Your task to perform on an android device: Add "acer predator" to the cart on newegg.com Image 0: 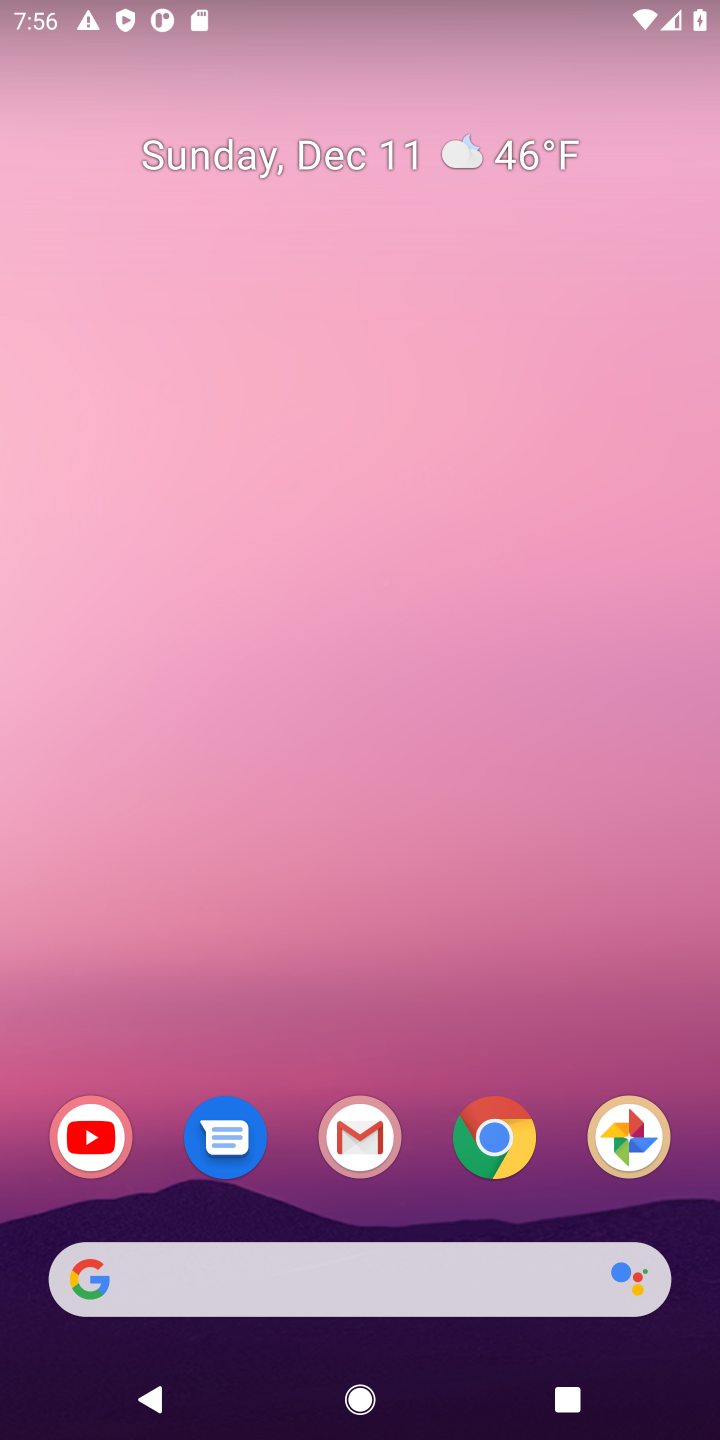
Step 0: click (482, 1150)
Your task to perform on an android device: Add "acer predator" to the cart on newegg.com Image 1: 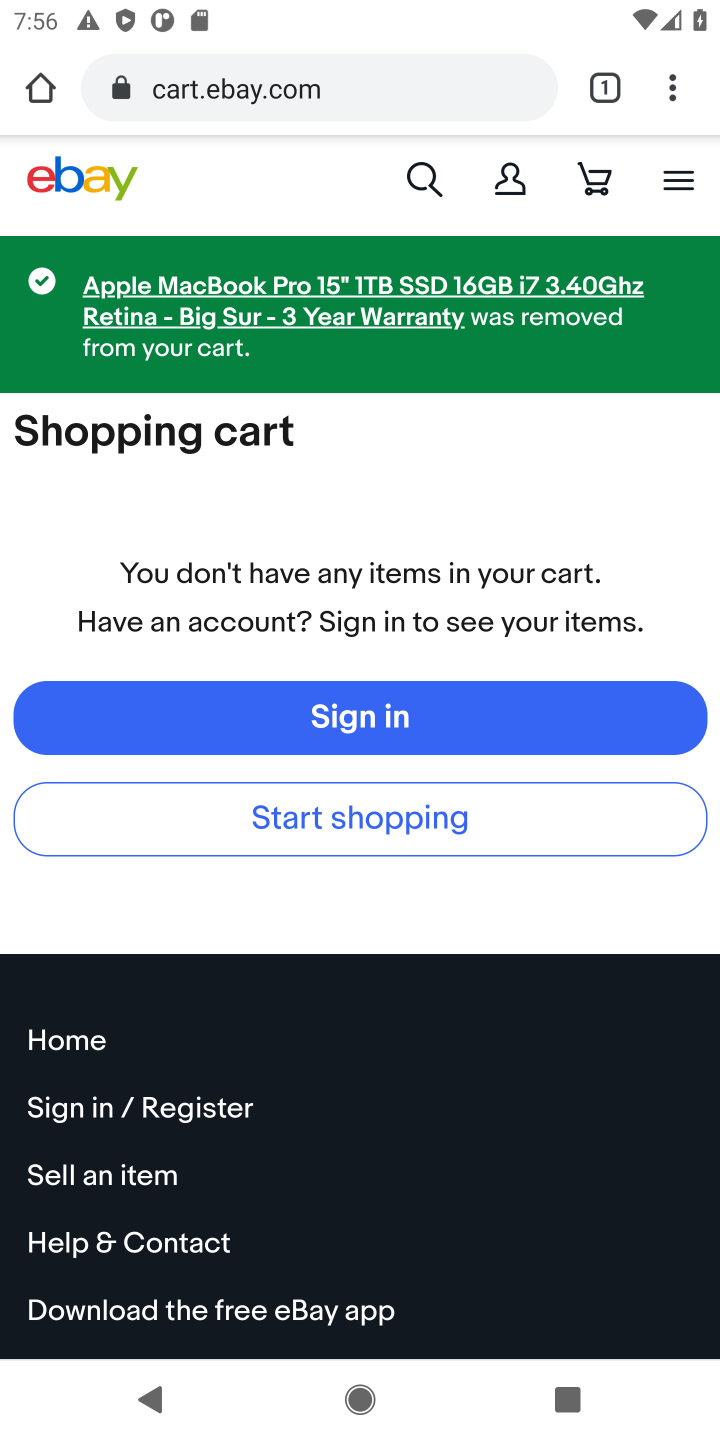
Step 1: click (295, 99)
Your task to perform on an android device: Add "acer predator" to the cart on newegg.com Image 2: 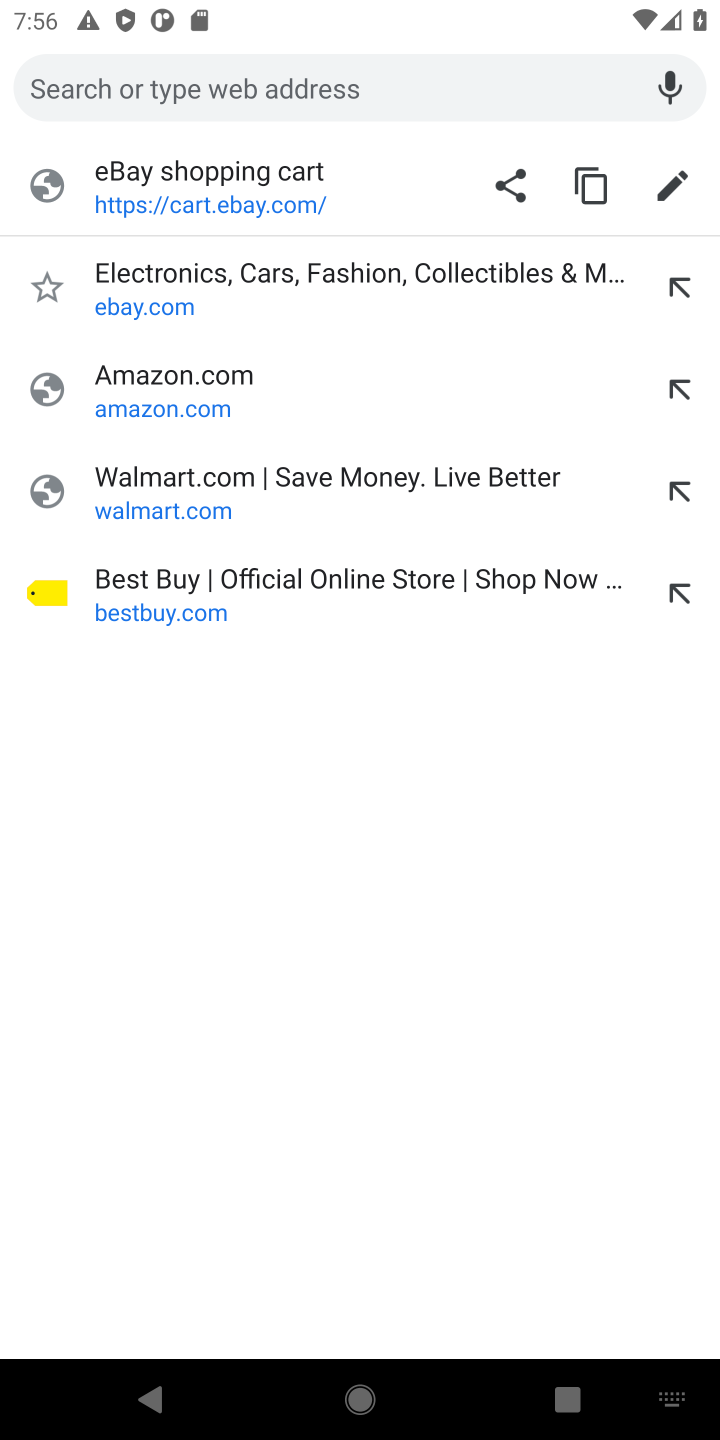
Step 2: type "NEWEGG"
Your task to perform on an android device: Add "acer predator" to the cart on newegg.com Image 3: 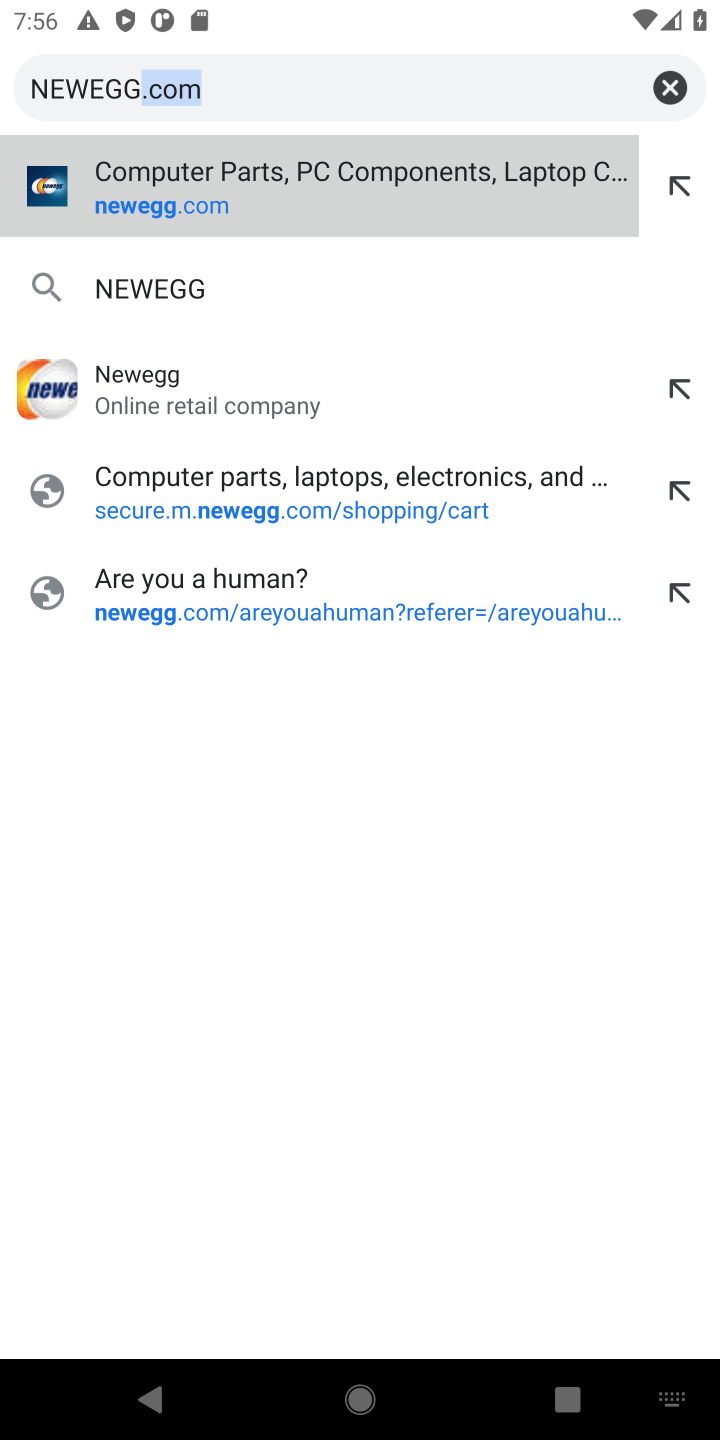
Step 3: click (164, 203)
Your task to perform on an android device: Add "acer predator" to the cart on newegg.com Image 4: 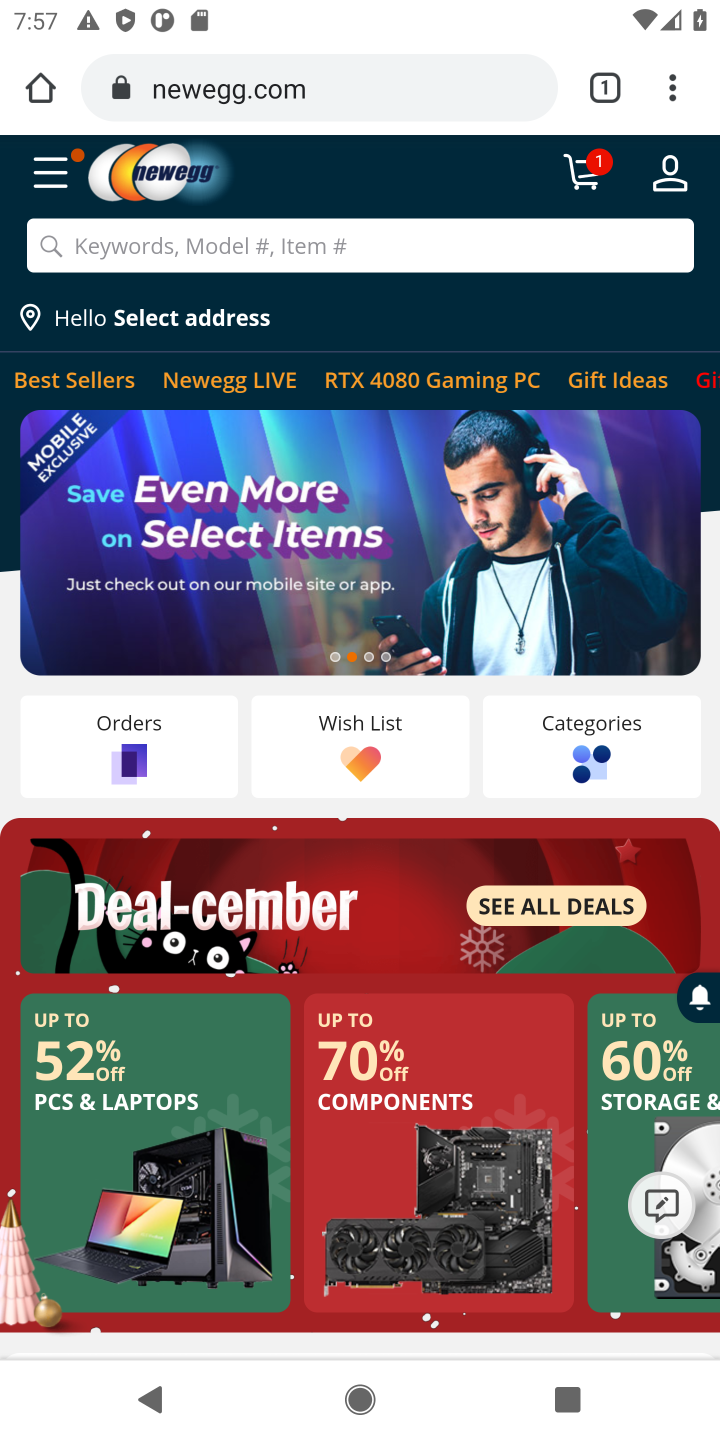
Step 4: click (282, 242)
Your task to perform on an android device: Add "acer predator" to the cart on newegg.com Image 5: 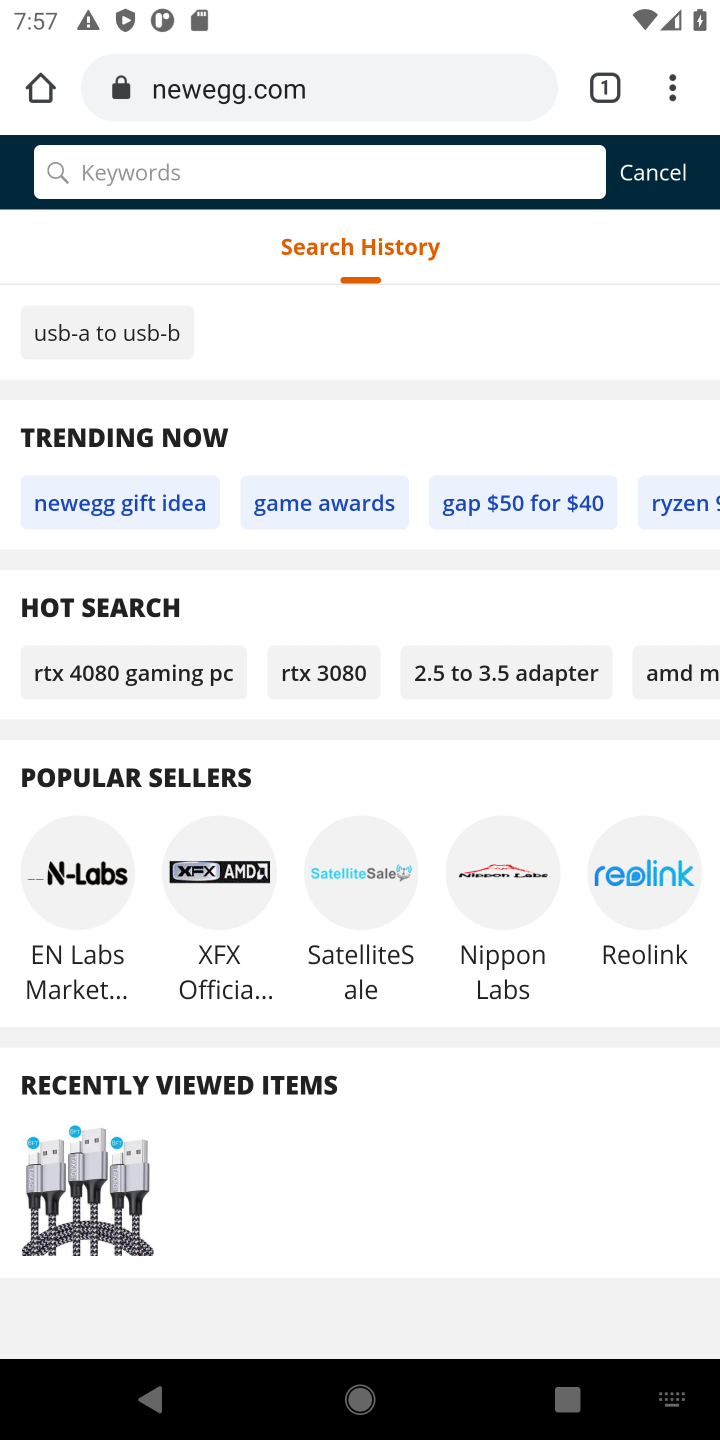
Step 5: type "ACER PREDATOR"
Your task to perform on an android device: Add "acer predator" to the cart on newegg.com Image 6: 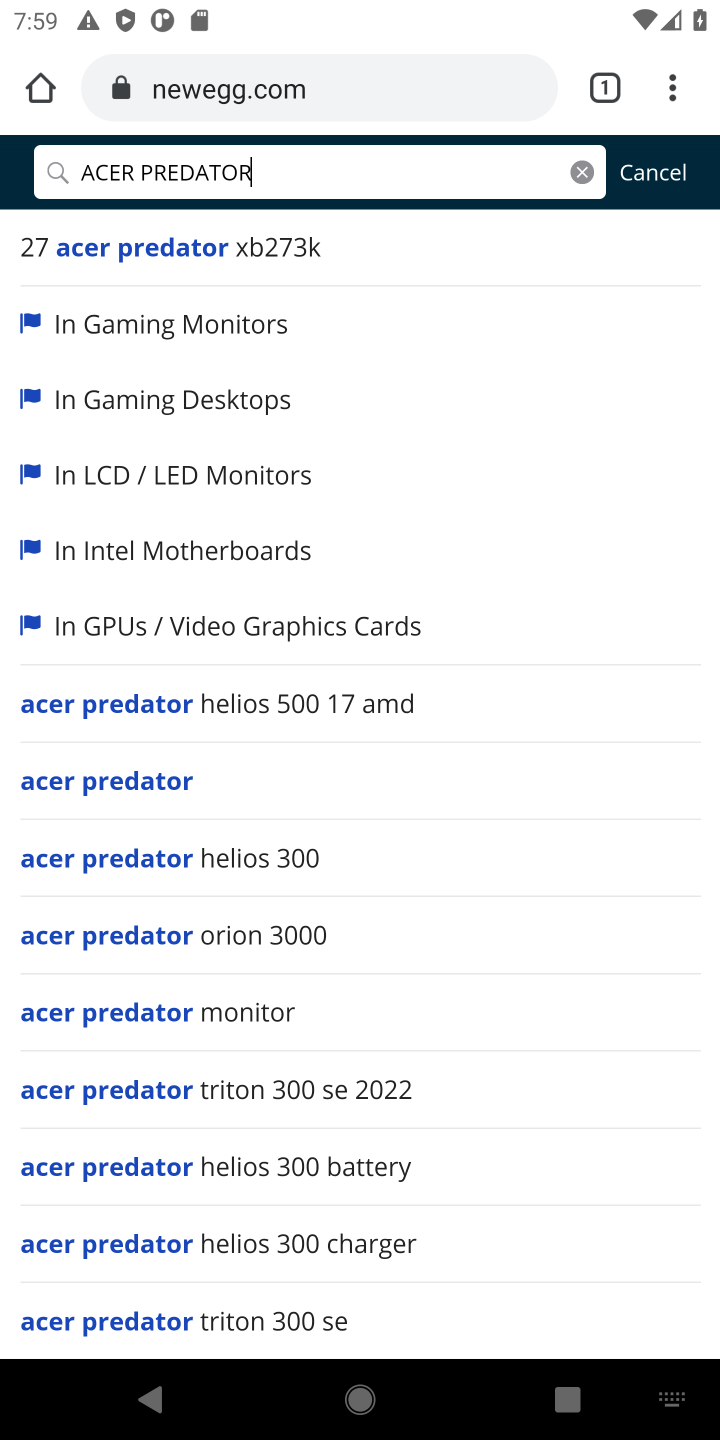
Step 6: click (265, 252)
Your task to perform on an android device: Add "acer predator" to the cart on newegg.com Image 7: 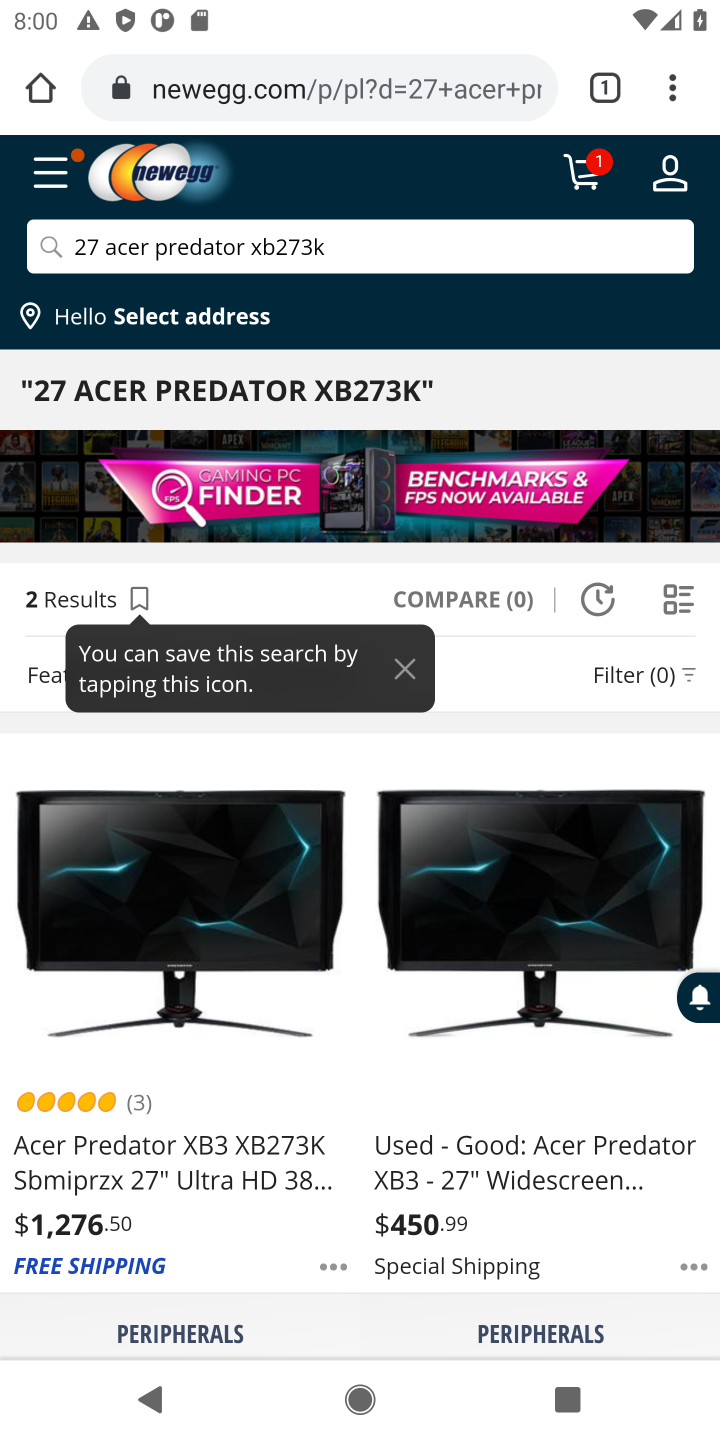
Step 7: click (162, 920)
Your task to perform on an android device: Add "acer predator" to the cart on newegg.com Image 8: 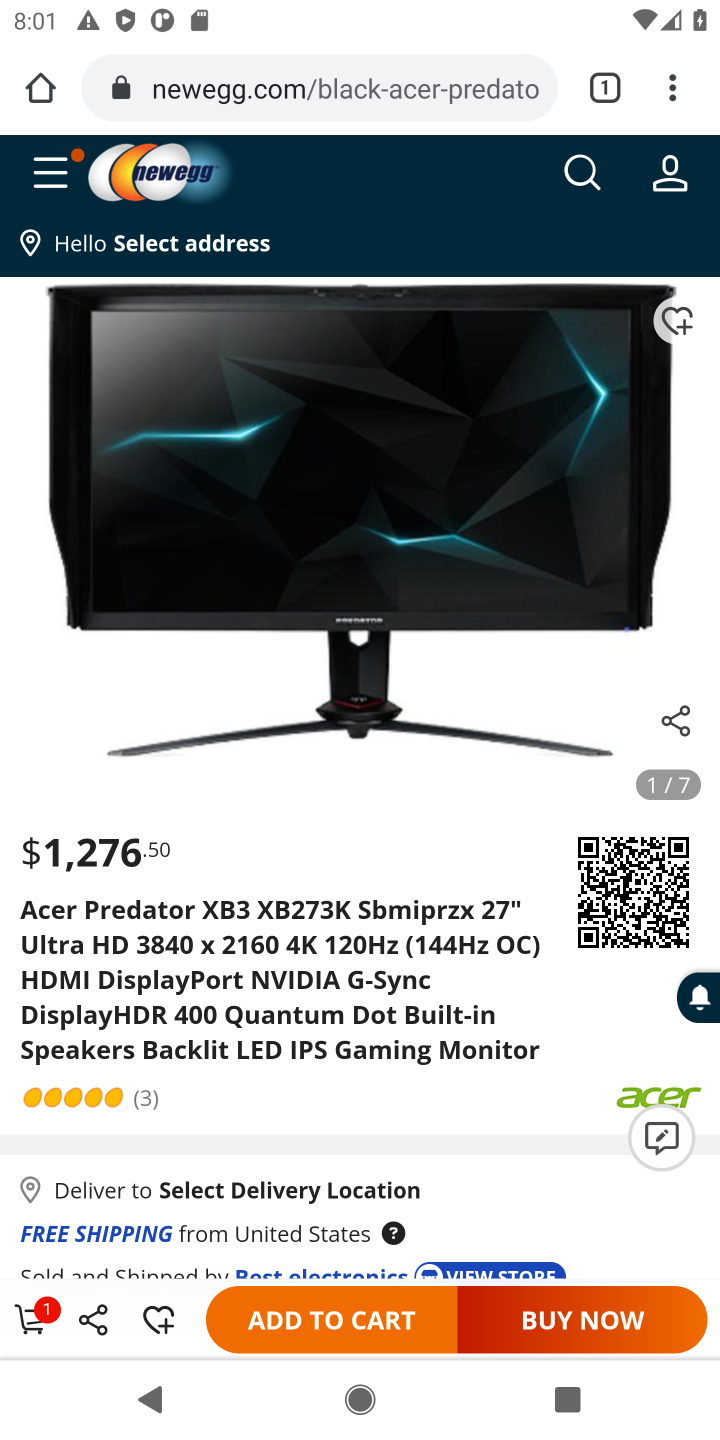
Step 8: click (353, 1321)
Your task to perform on an android device: Add "acer predator" to the cart on newegg.com Image 9: 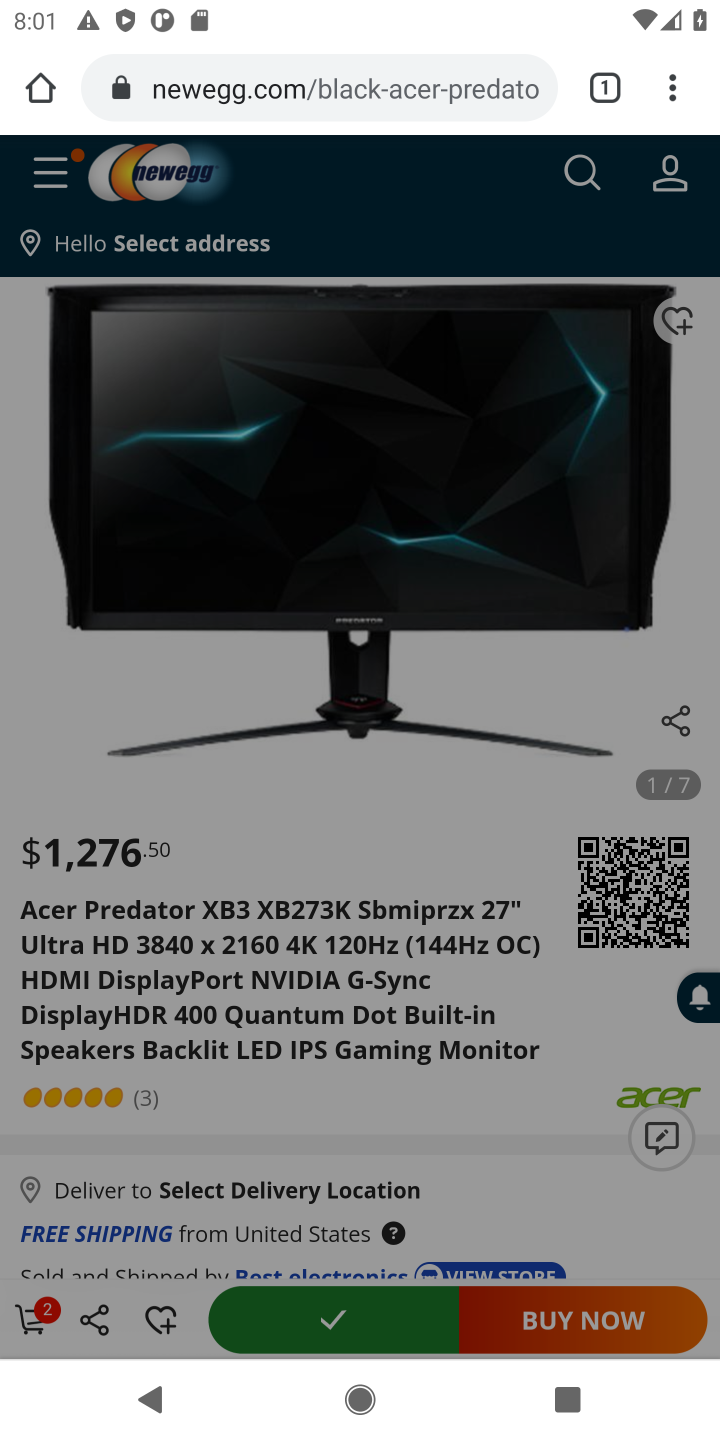
Step 9: task complete